Your task to perform on an android device: show emergency info Image 0: 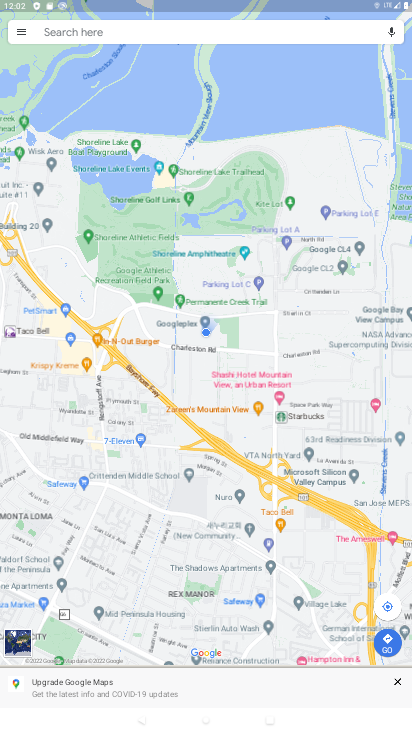
Step 0: press home button
Your task to perform on an android device: show emergency info Image 1: 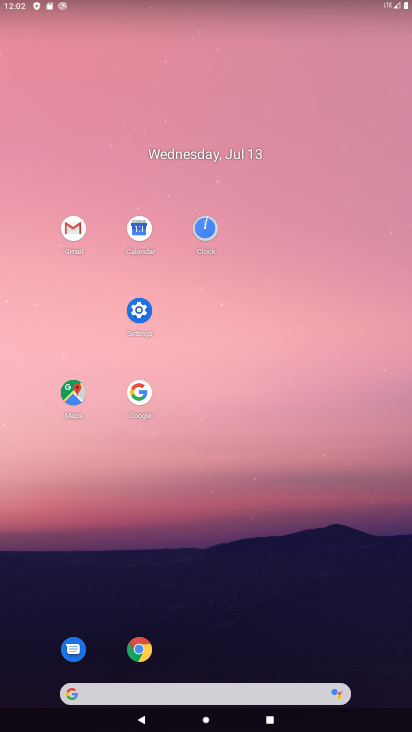
Step 1: click (141, 309)
Your task to perform on an android device: show emergency info Image 2: 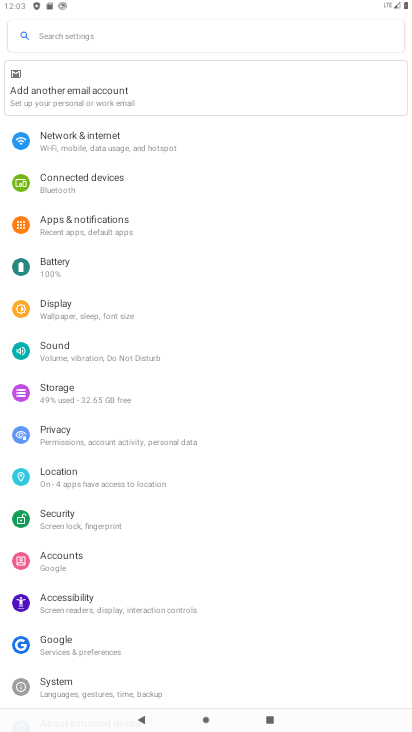
Step 2: drag from (146, 623) to (150, 276)
Your task to perform on an android device: show emergency info Image 3: 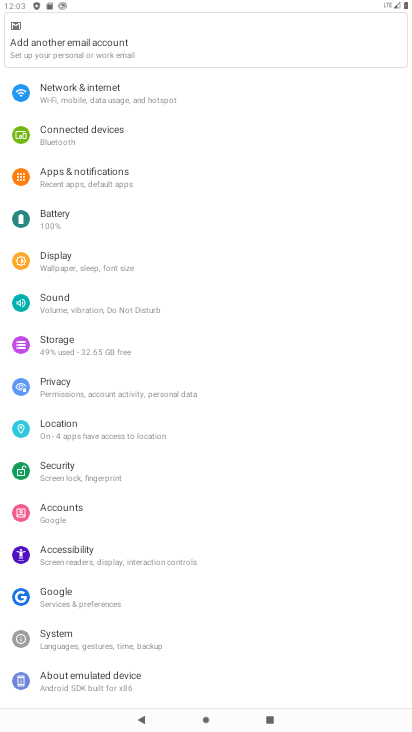
Step 3: drag from (245, 189) to (255, 445)
Your task to perform on an android device: show emergency info Image 4: 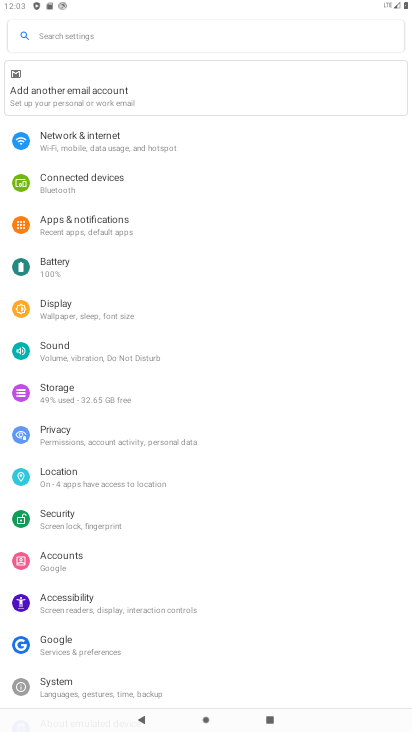
Step 4: drag from (193, 679) to (132, 328)
Your task to perform on an android device: show emergency info Image 5: 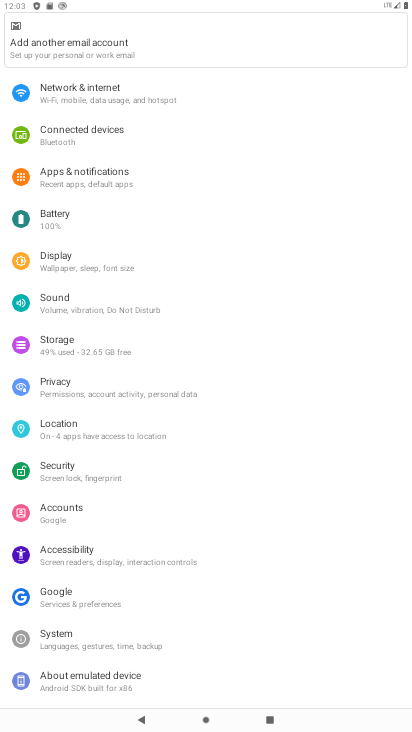
Step 5: click (126, 685)
Your task to perform on an android device: show emergency info Image 6: 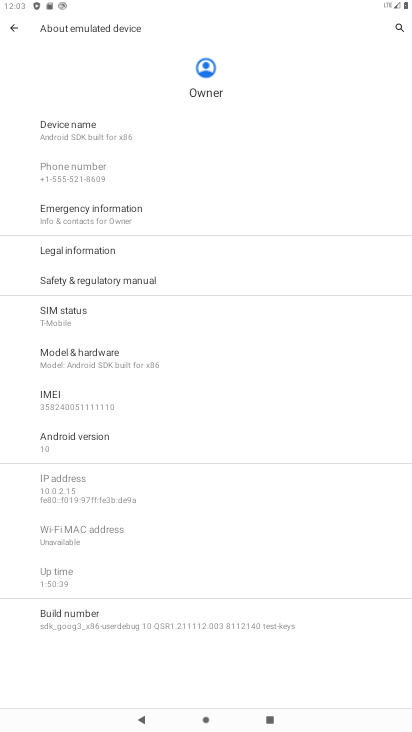
Step 6: click (152, 203)
Your task to perform on an android device: show emergency info Image 7: 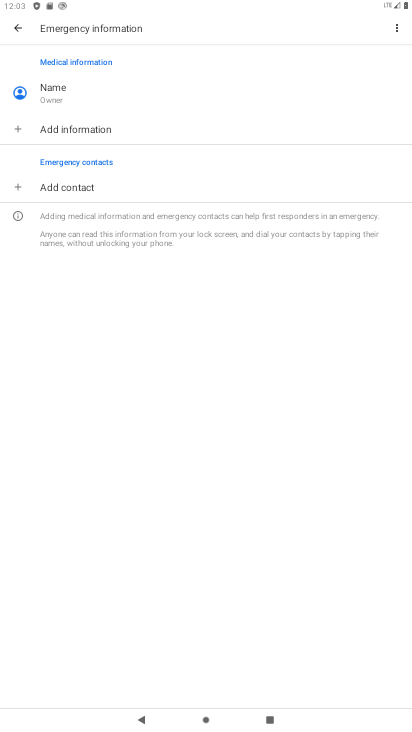
Step 7: task complete